Your task to perform on an android device: Go to calendar. Show me events next week Image 0: 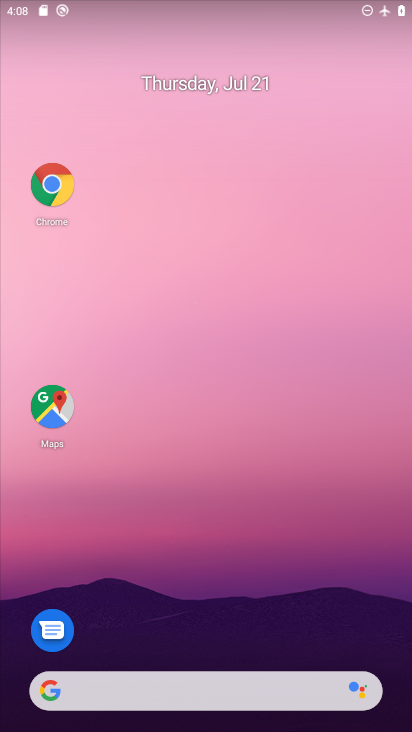
Step 0: drag from (230, 665) to (311, 8)
Your task to perform on an android device: Go to calendar. Show me events next week Image 1: 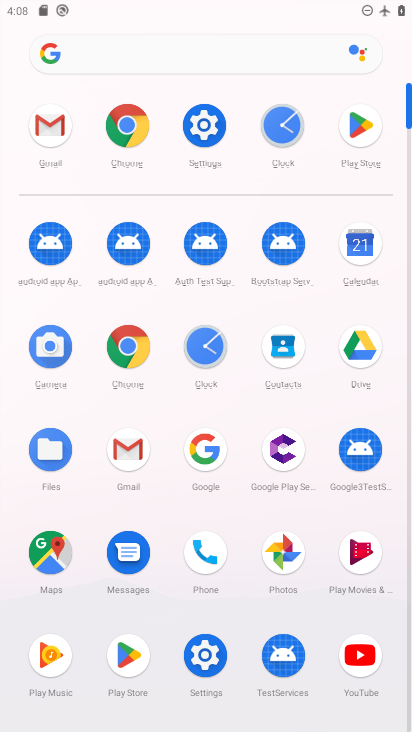
Step 1: click (351, 256)
Your task to perform on an android device: Go to calendar. Show me events next week Image 2: 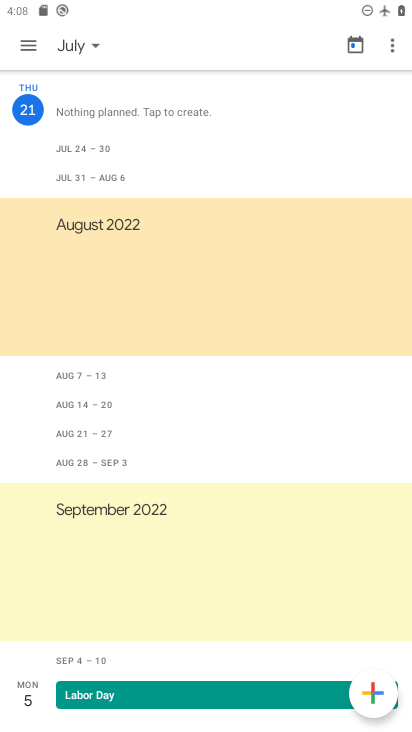
Step 2: click (45, 42)
Your task to perform on an android device: Go to calendar. Show me events next week Image 3: 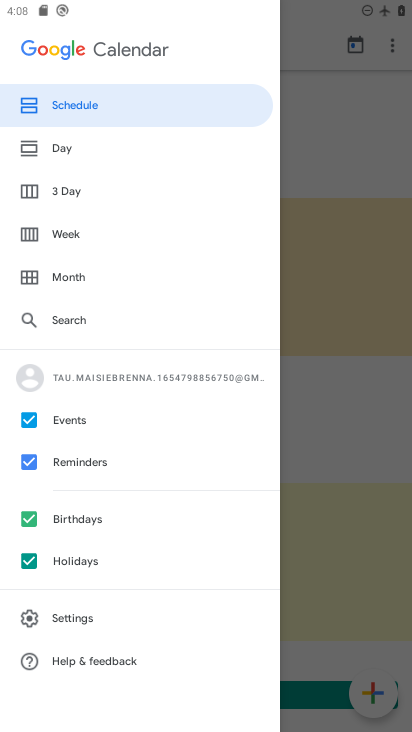
Step 3: click (69, 224)
Your task to perform on an android device: Go to calendar. Show me events next week Image 4: 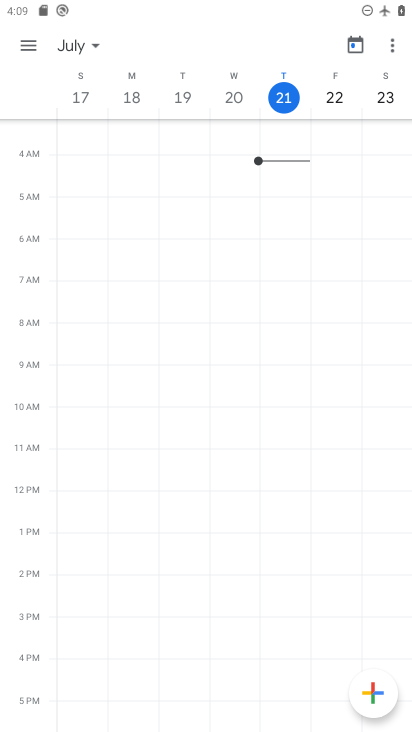
Step 4: task complete